Your task to perform on an android device: turn off notifications settings in the gmail app Image 0: 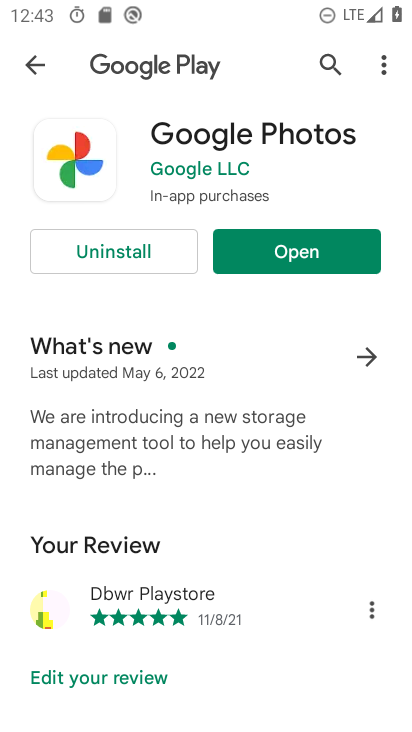
Step 0: press home button
Your task to perform on an android device: turn off notifications settings in the gmail app Image 1: 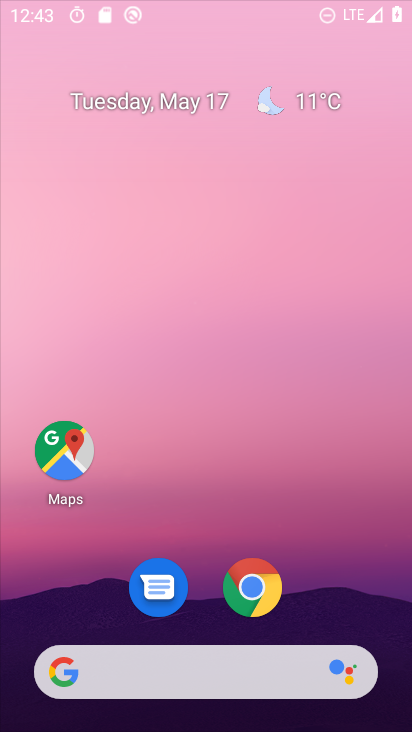
Step 1: drag from (195, 603) to (228, 102)
Your task to perform on an android device: turn off notifications settings in the gmail app Image 2: 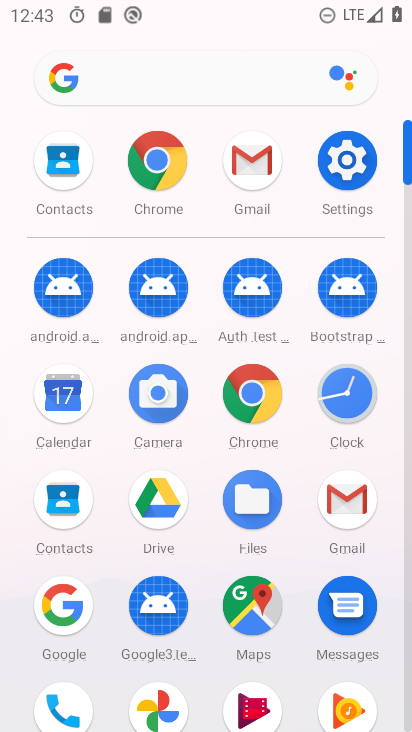
Step 2: click (343, 492)
Your task to perform on an android device: turn off notifications settings in the gmail app Image 3: 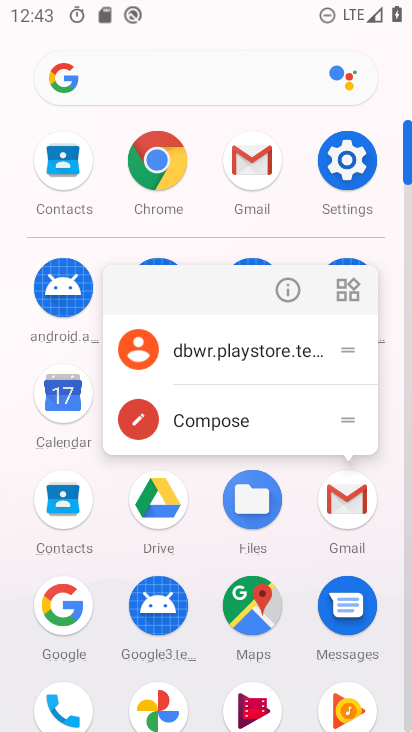
Step 3: click (181, 348)
Your task to perform on an android device: turn off notifications settings in the gmail app Image 4: 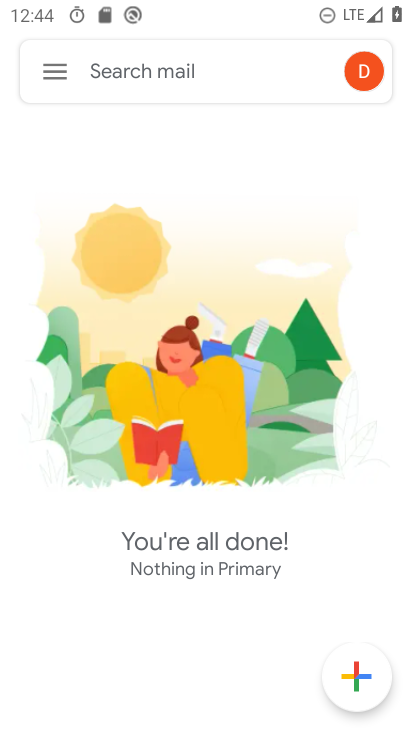
Step 4: click (182, 374)
Your task to perform on an android device: turn off notifications settings in the gmail app Image 5: 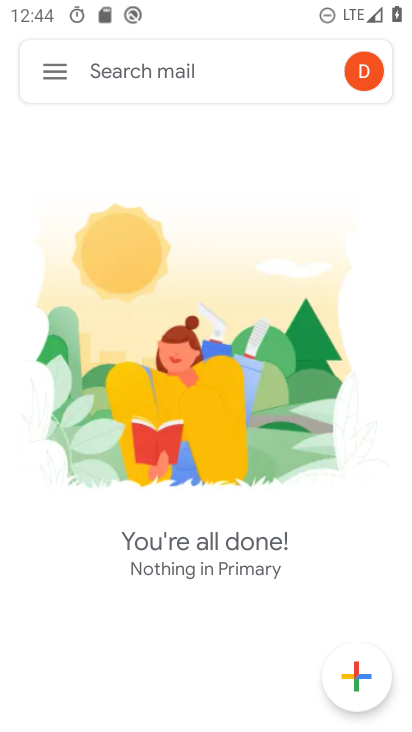
Step 5: click (162, 286)
Your task to perform on an android device: turn off notifications settings in the gmail app Image 6: 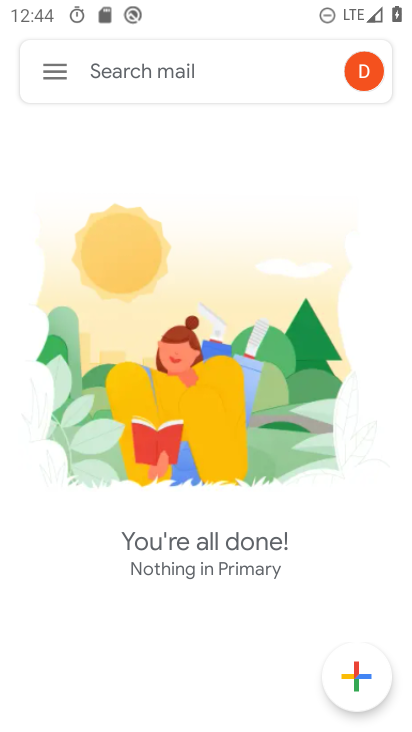
Step 6: click (195, 247)
Your task to perform on an android device: turn off notifications settings in the gmail app Image 7: 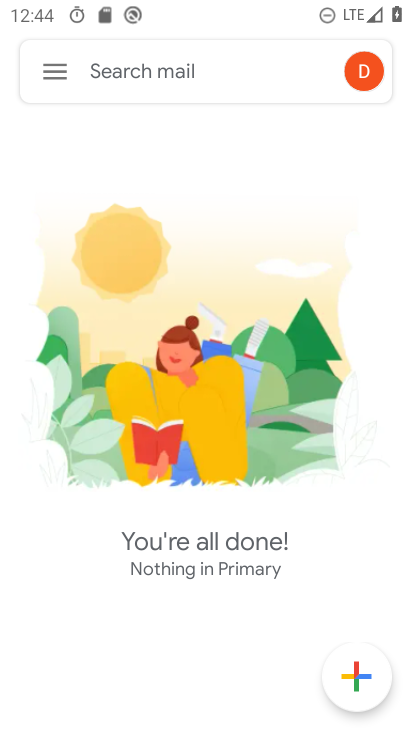
Step 7: click (249, 586)
Your task to perform on an android device: turn off notifications settings in the gmail app Image 8: 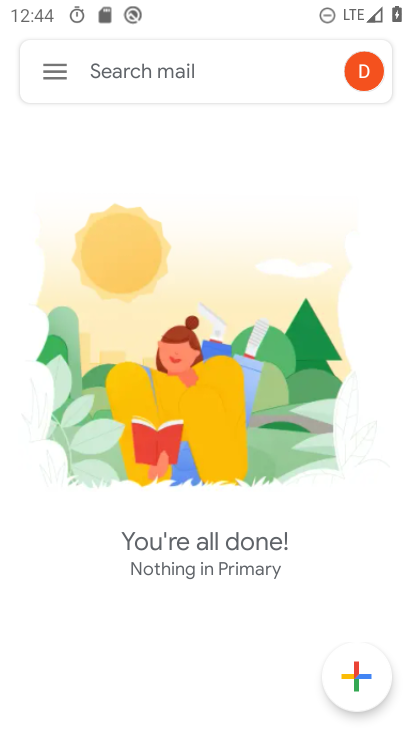
Step 8: click (48, 67)
Your task to perform on an android device: turn off notifications settings in the gmail app Image 9: 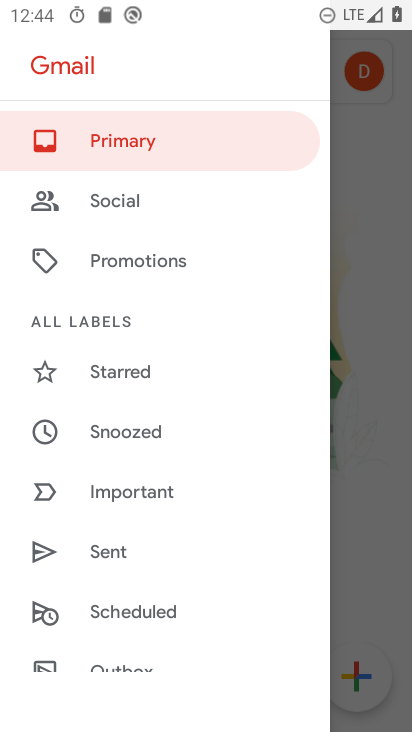
Step 9: drag from (137, 571) to (123, 161)
Your task to perform on an android device: turn off notifications settings in the gmail app Image 10: 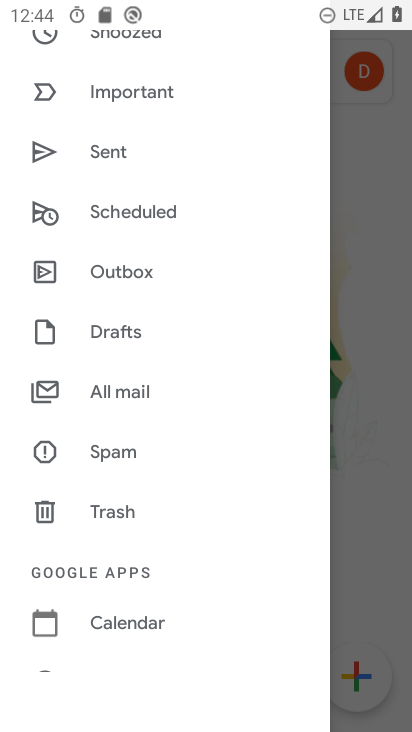
Step 10: drag from (171, 560) to (170, 204)
Your task to perform on an android device: turn off notifications settings in the gmail app Image 11: 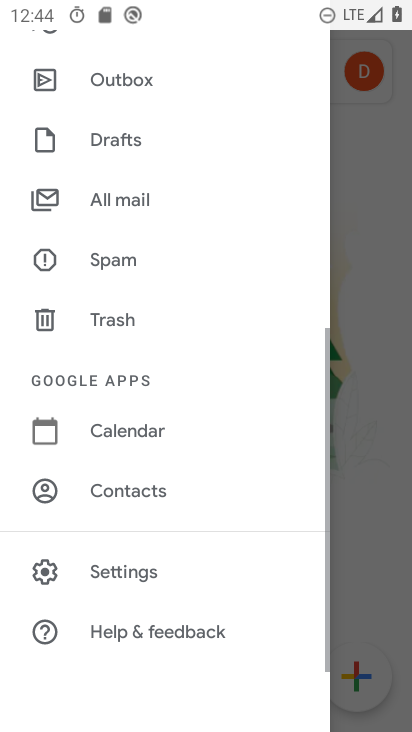
Step 11: click (113, 565)
Your task to perform on an android device: turn off notifications settings in the gmail app Image 12: 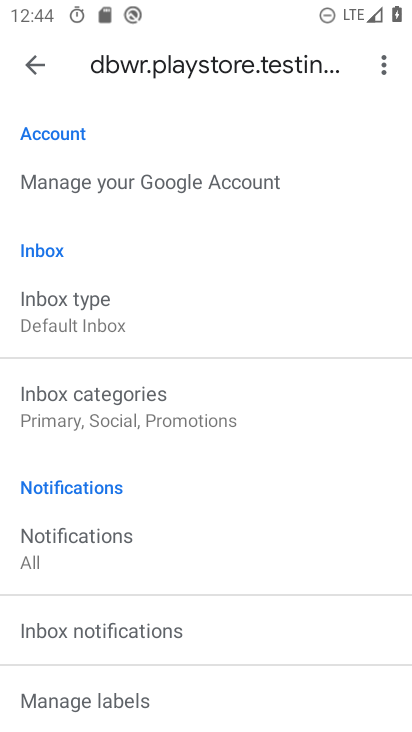
Step 12: drag from (158, 546) to (250, 72)
Your task to perform on an android device: turn off notifications settings in the gmail app Image 13: 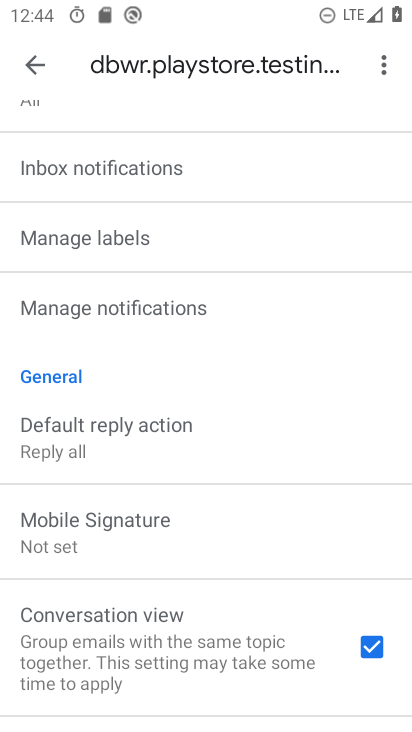
Step 13: click (141, 288)
Your task to perform on an android device: turn off notifications settings in the gmail app Image 14: 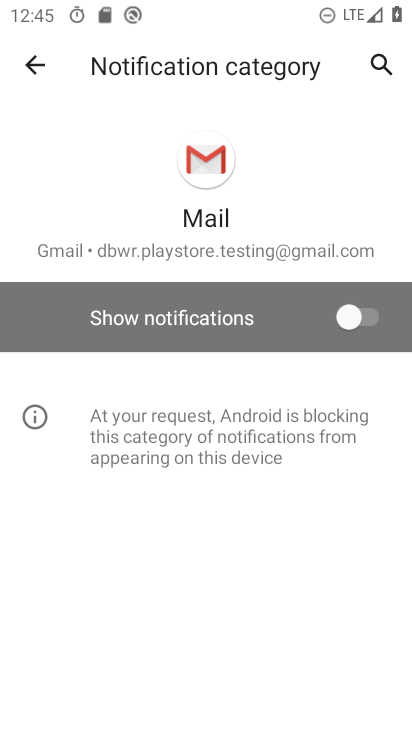
Step 14: task complete